Your task to perform on an android device: find snoozed emails in the gmail app Image 0: 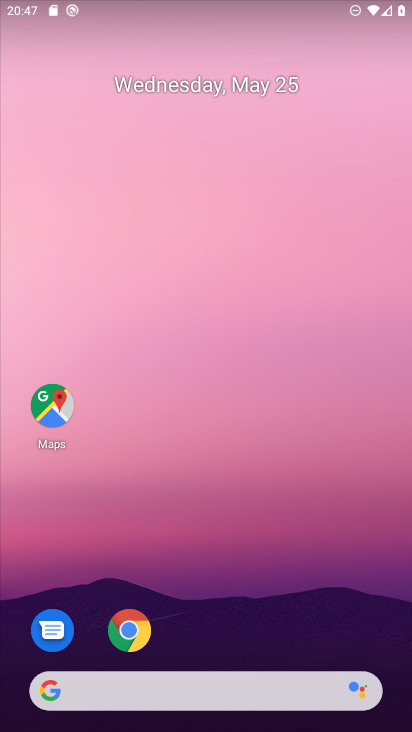
Step 0: drag from (199, 625) to (265, 135)
Your task to perform on an android device: find snoozed emails in the gmail app Image 1: 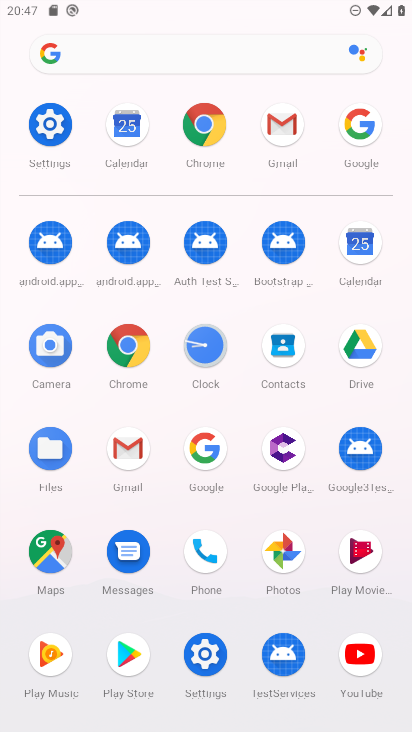
Step 1: click (138, 433)
Your task to perform on an android device: find snoozed emails in the gmail app Image 2: 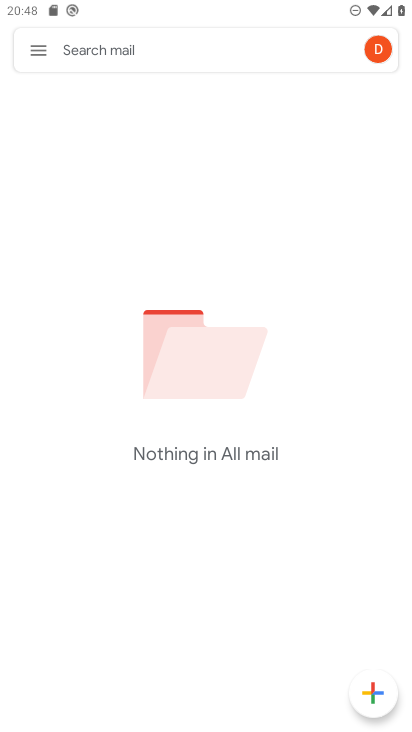
Step 2: task complete